Your task to perform on an android device: change the clock display to analog Image 0: 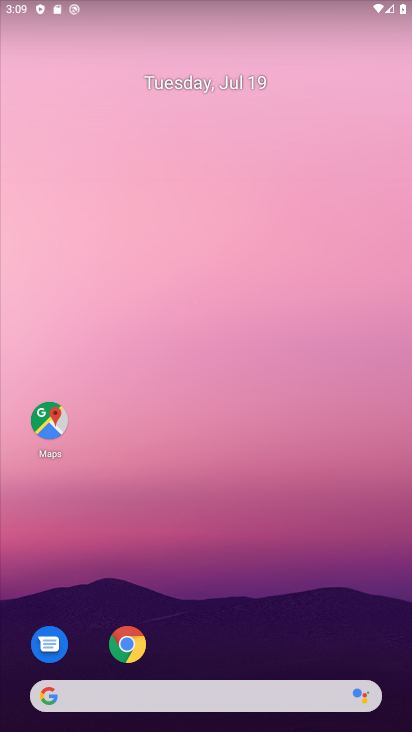
Step 0: drag from (245, 644) to (192, 263)
Your task to perform on an android device: change the clock display to analog Image 1: 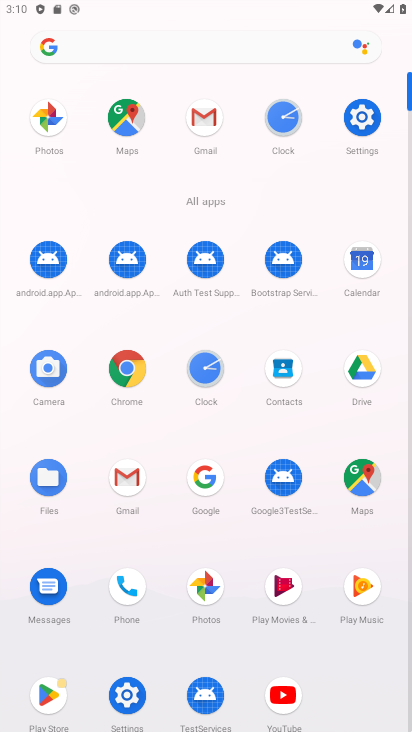
Step 1: click (284, 131)
Your task to perform on an android device: change the clock display to analog Image 2: 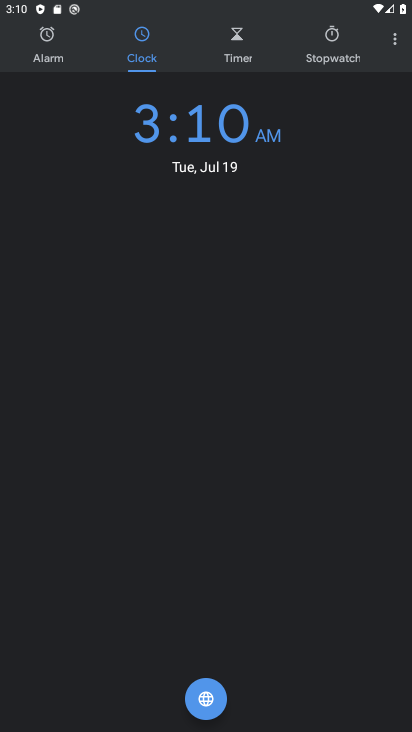
Step 2: click (395, 38)
Your task to perform on an android device: change the clock display to analog Image 3: 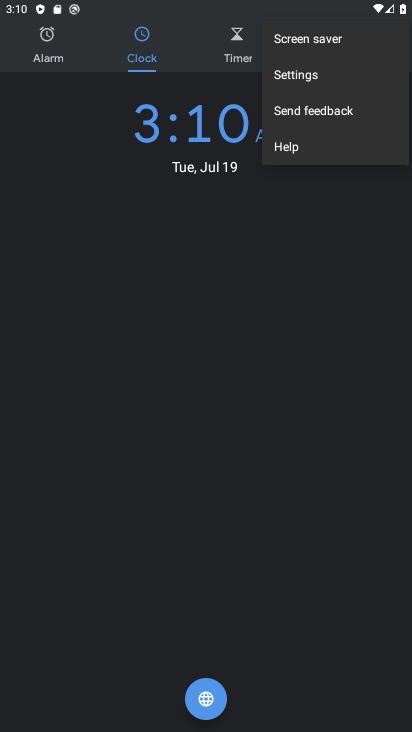
Step 3: click (326, 76)
Your task to perform on an android device: change the clock display to analog Image 4: 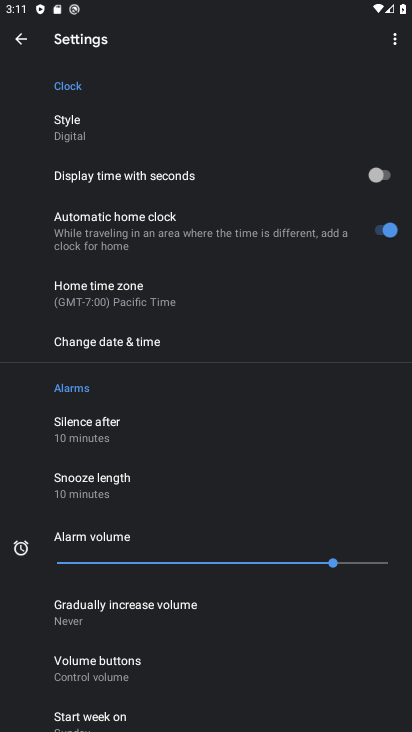
Step 4: click (97, 137)
Your task to perform on an android device: change the clock display to analog Image 5: 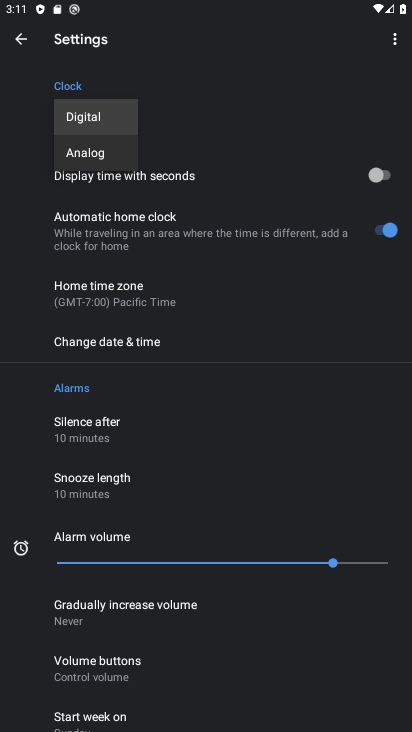
Step 5: click (86, 154)
Your task to perform on an android device: change the clock display to analog Image 6: 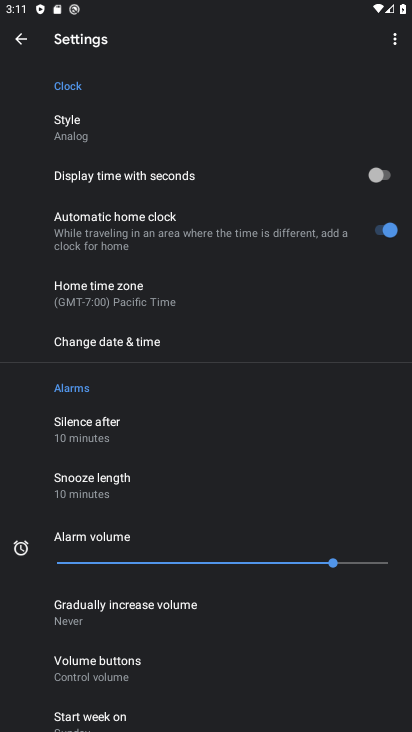
Step 6: task complete